Your task to perform on an android device: turn off wifi Image 0: 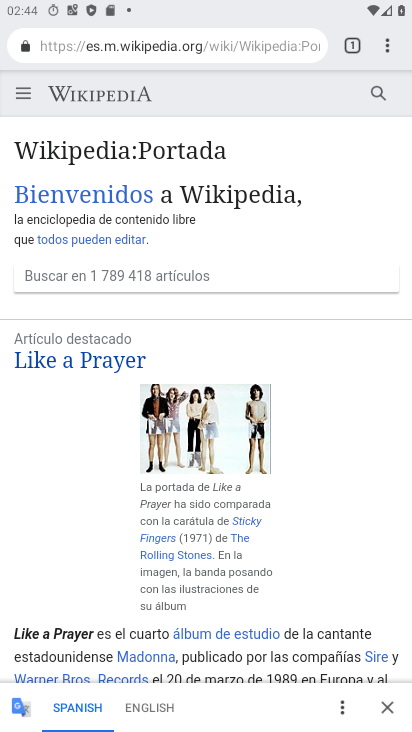
Step 0: drag from (228, 18) to (168, 566)
Your task to perform on an android device: turn off wifi Image 1: 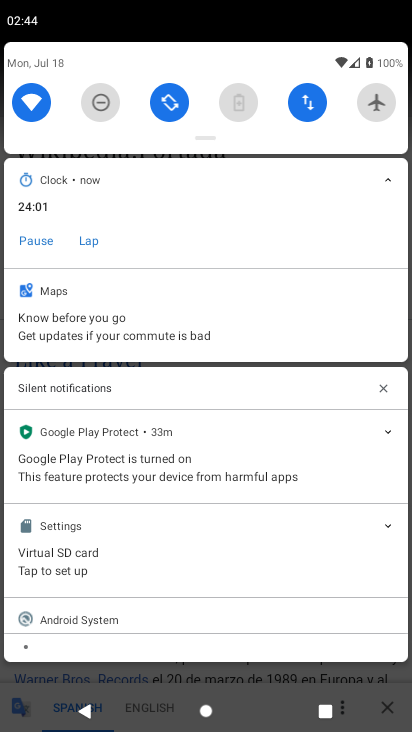
Step 1: click (36, 90)
Your task to perform on an android device: turn off wifi Image 2: 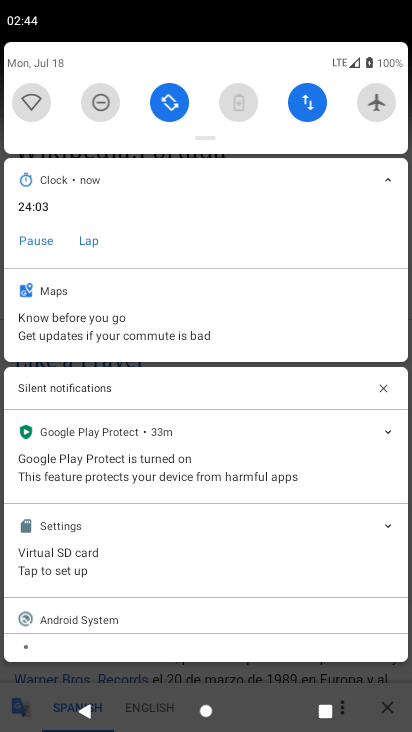
Step 2: task complete